Your task to perform on an android device: Open Yahoo.com Image 0: 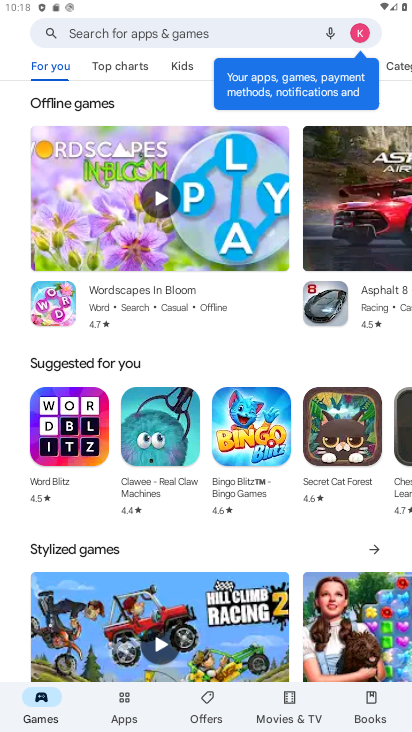
Step 0: press home button
Your task to perform on an android device: Open Yahoo.com Image 1: 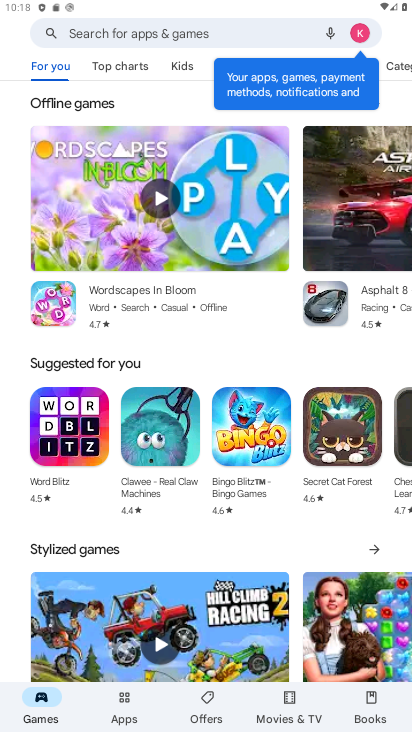
Step 1: press home button
Your task to perform on an android device: Open Yahoo.com Image 2: 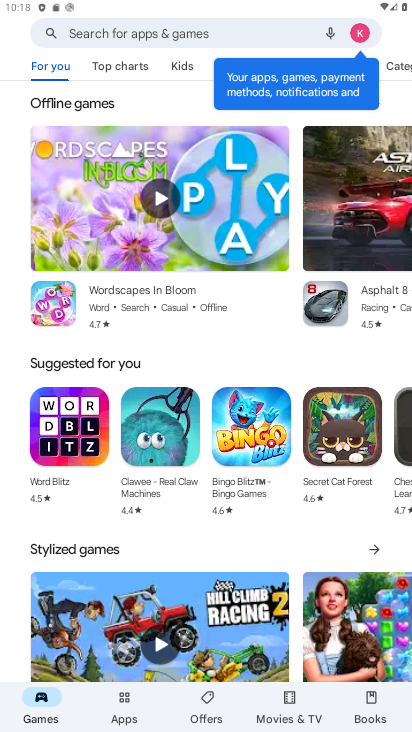
Step 2: click (233, 125)
Your task to perform on an android device: Open Yahoo.com Image 3: 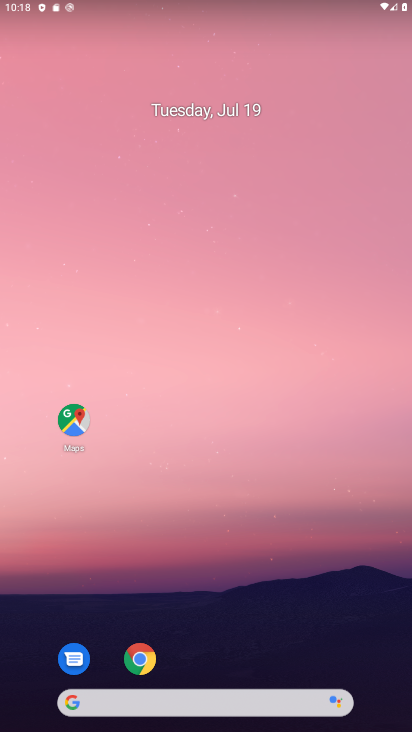
Step 3: press home button
Your task to perform on an android device: Open Yahoo.com Image 4: 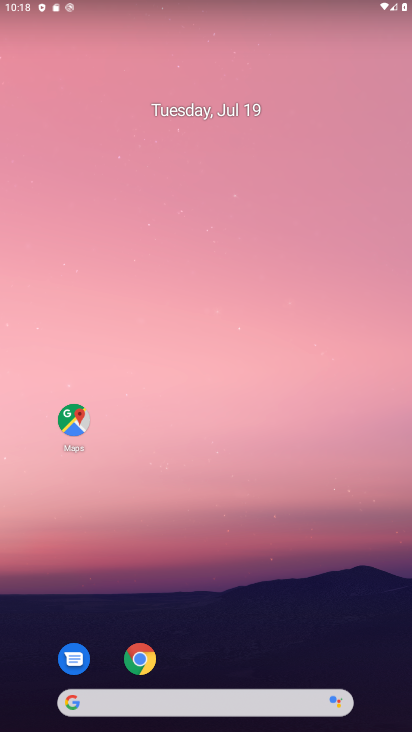
Step 4: click (265, 147)
Your task to perform on an android device: Open Yahoo.com Image 5: 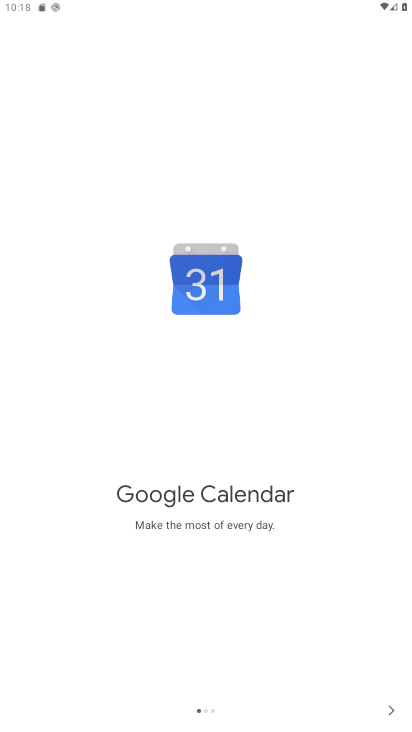
Step 5: click (381, 705)
Your task to perform on an android device: Open Yahoo.com Image 6: 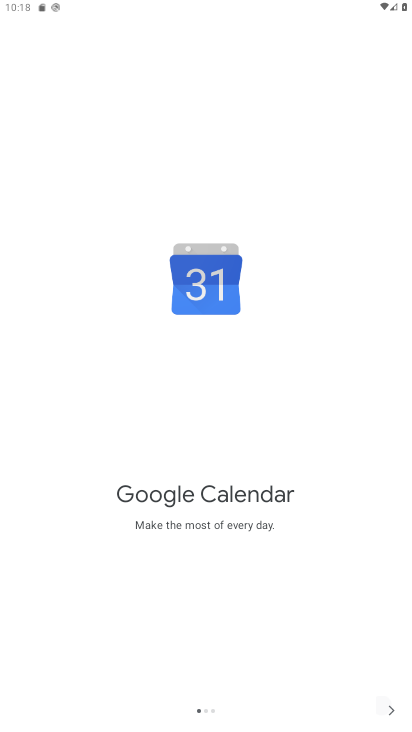
Step 6: click (381, 705)
Your task to perform on an android device: Open Yahoo.com Image 7: 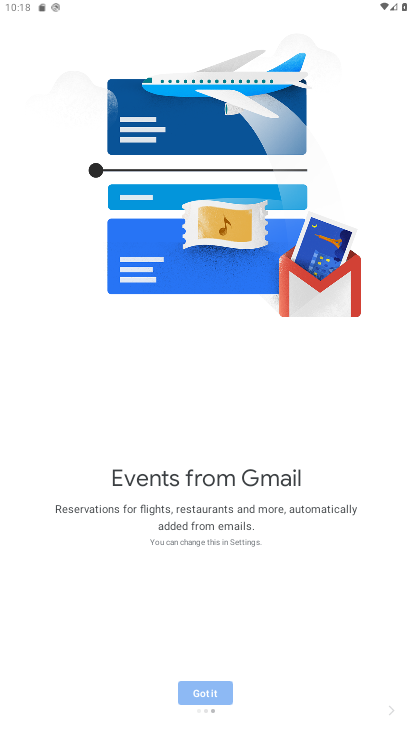
Step 7: click (390, 699)
Your task to perform on an android device: Open Yahoo.com Image 8: 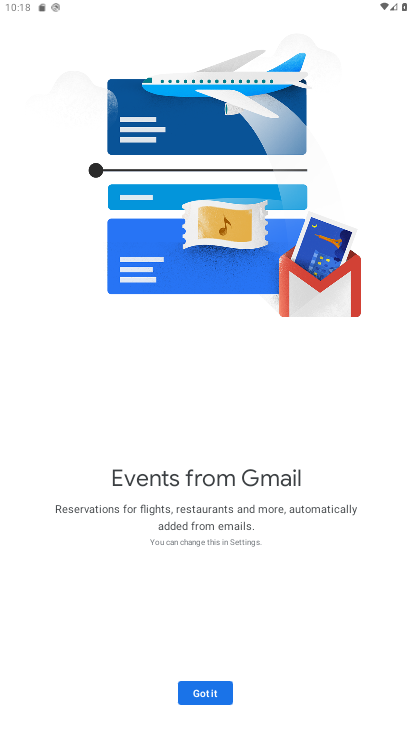
Step 8: click (390, 699)
Your task to perform on an android device: Open Yahoo.com Image 9: 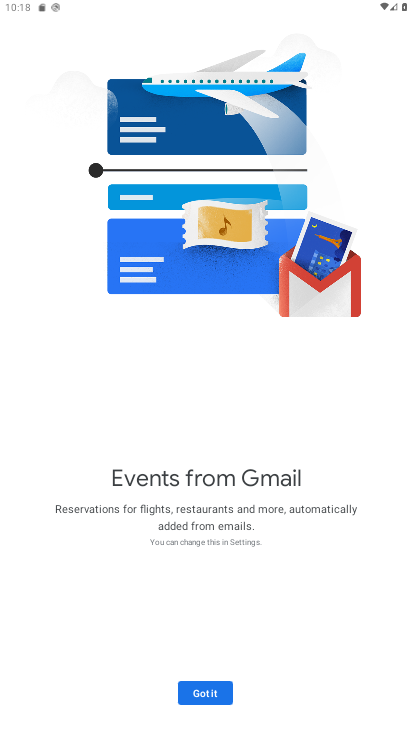
Step 9: click (199, 691)
Your task to perform on an android device: Open Yahoo.com Image 10: 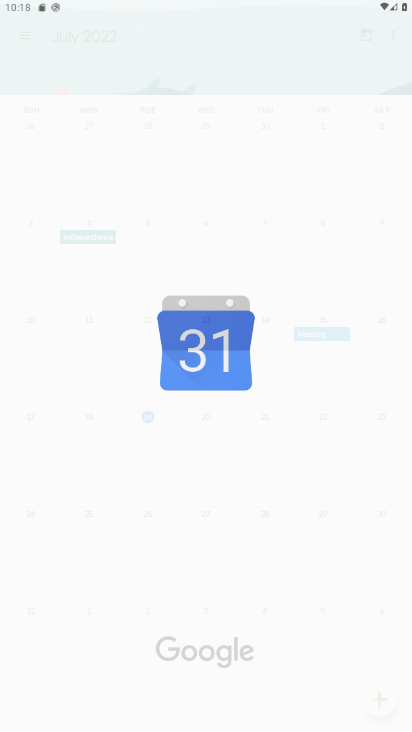
Step 10: drag from (248, 610) to (251, 408)
Your task to perform on an android device: Open Yahoo.com Image 11: 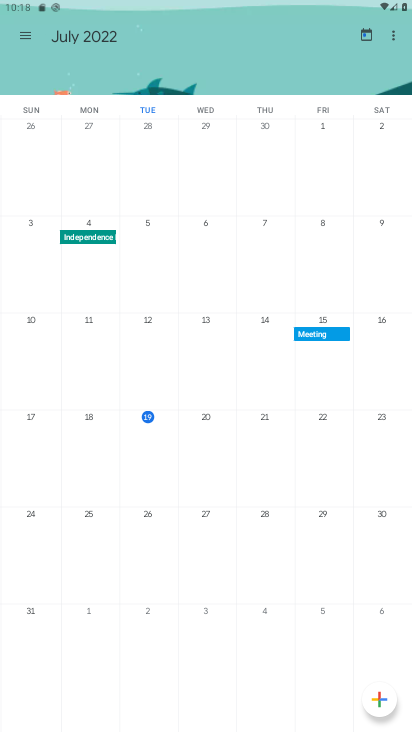
Step 11: press home button
Your task to perform on an android device: Open Yahoo.com Image 12: 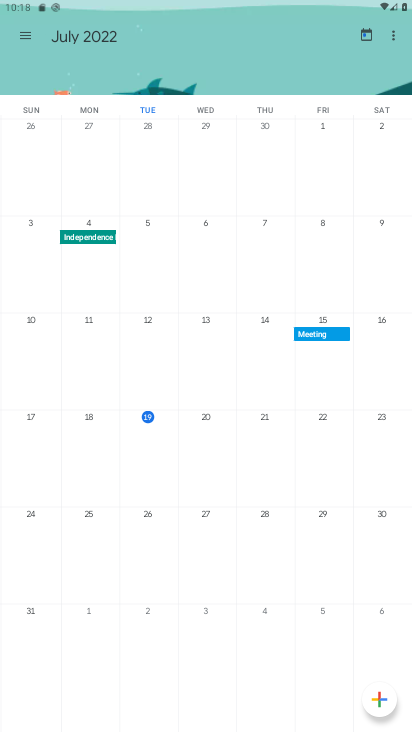
Step 12: drag from (260, 635) to (285, 181)
Your task to perform on an android device: Open Yahoo.com Image 13: 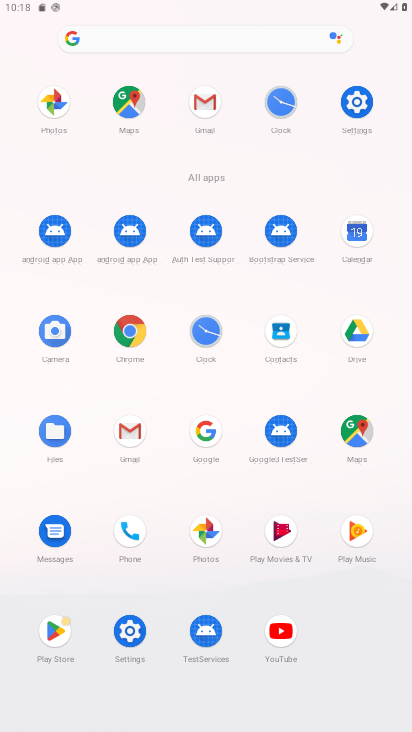
Step 13: drag from (197, 693) to (250, 132)
Your task to perform on an android device: Open Yahoo.com Image 14: 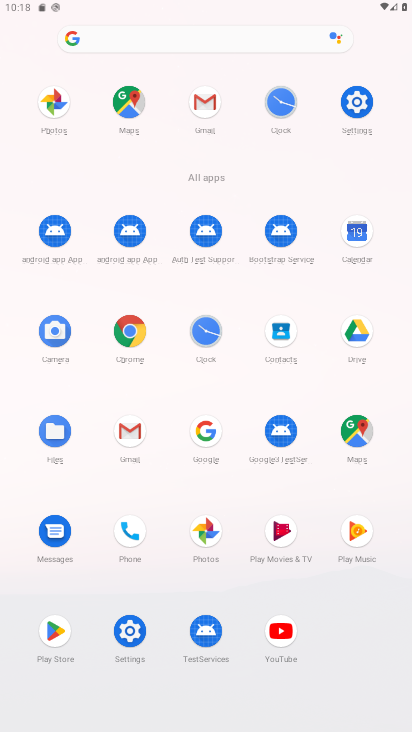
Step 14: click (154, 31)
Your task to perform on an android device: Open Yahoo.com Image 15: 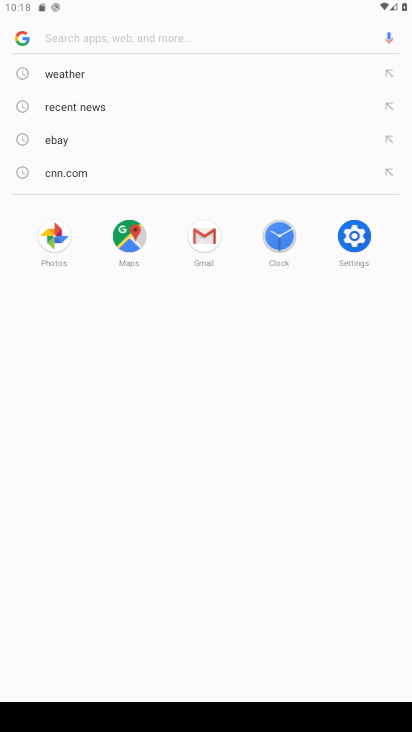
Step 15: type "Yahoo.com"
Your task to perform on an android device: Open Yahoo.com Image 16: 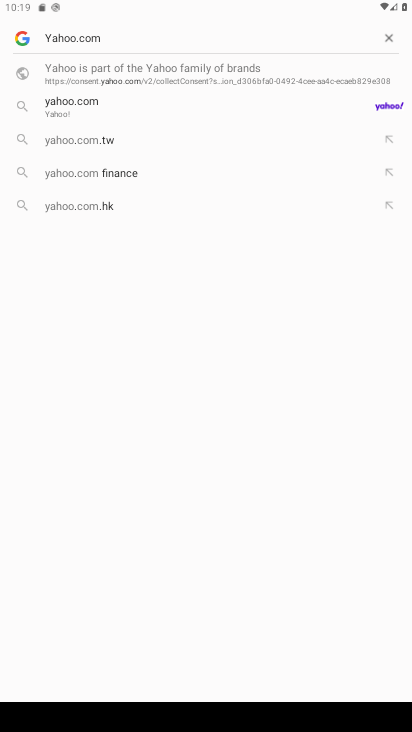
Step 16: click (115, 98)
Your task to perform on an android device: Open Yahoo.com Image 17: 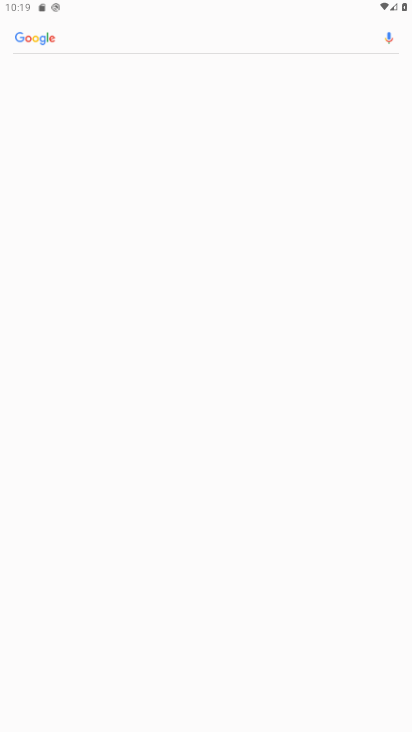
Step 17: drag from (257, 415) to (318, 192)
Your task to perform on an android device: Open Yahoo.com Image 18: 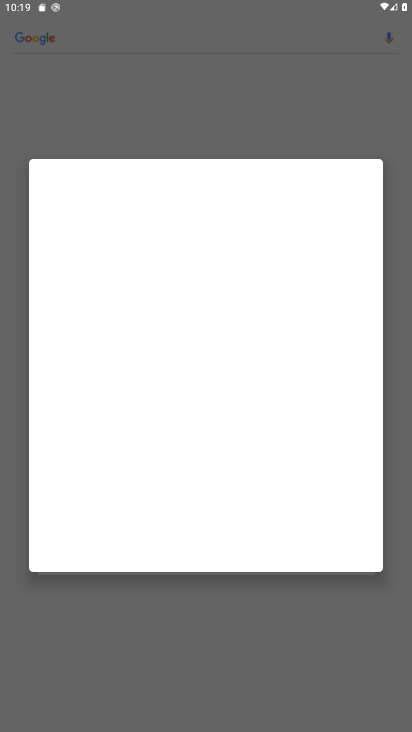
Step 18: drag from (168, 215) to (229, 592)
Your task to perform on an android device: Open Yahoo.com Image 19: 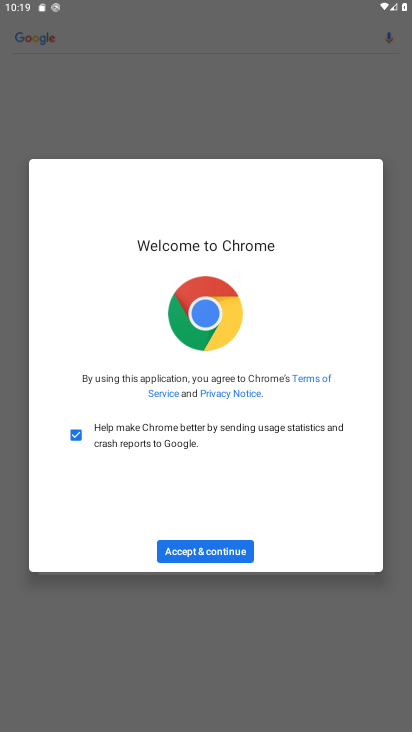
Step 19: click (222, 547)
Your task to perform on an android device: Open Yahoo.com Image 20: 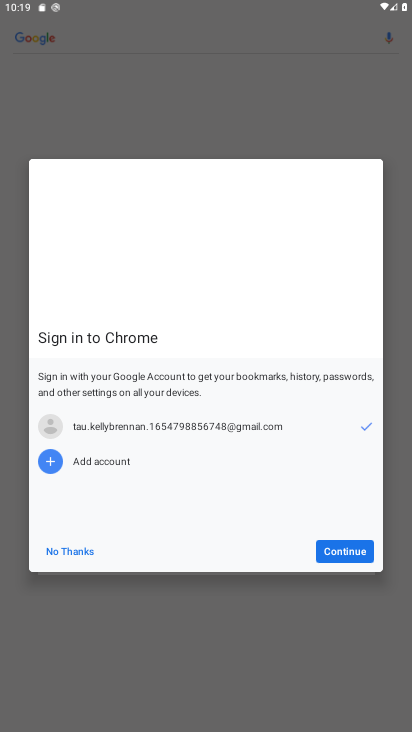
Step 20: click (342, 545)
Your task to perform on an android device: Open Yahoo.com Image 21: 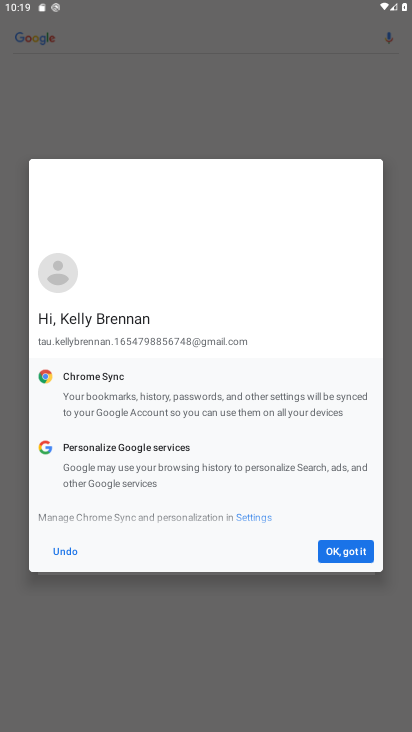
Step 21: click (345, 547)
Your task to perform on an android device: Open Yahoo.com Image 22: 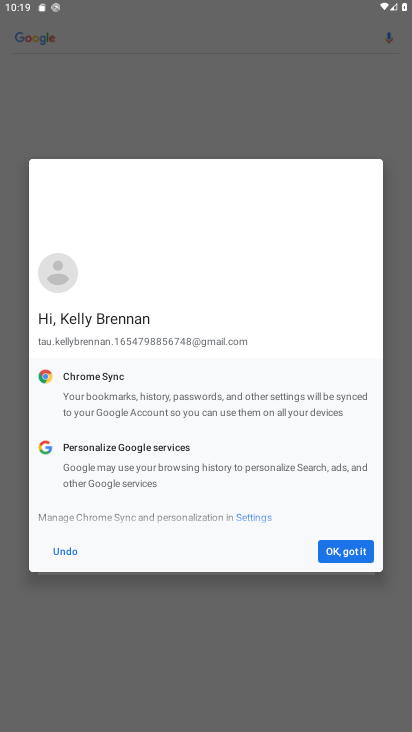
Step 22: click (346, 546)
Your task to perform on an android device: Open Yahoo.com Image 23: 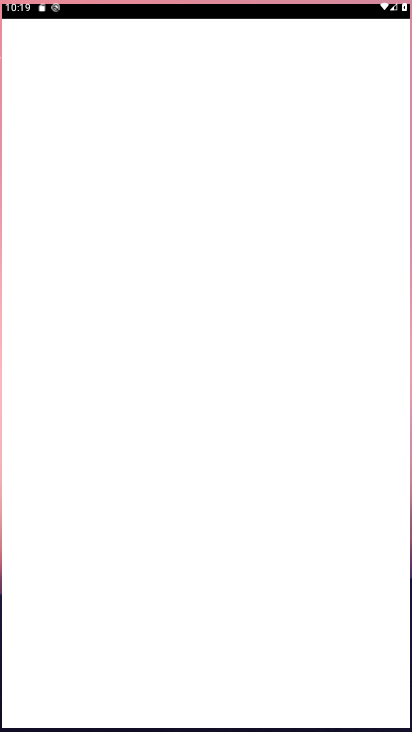
Step 23: click (331, 548)
Your task to perform on an android device: Open Yahoo.com Image 24: 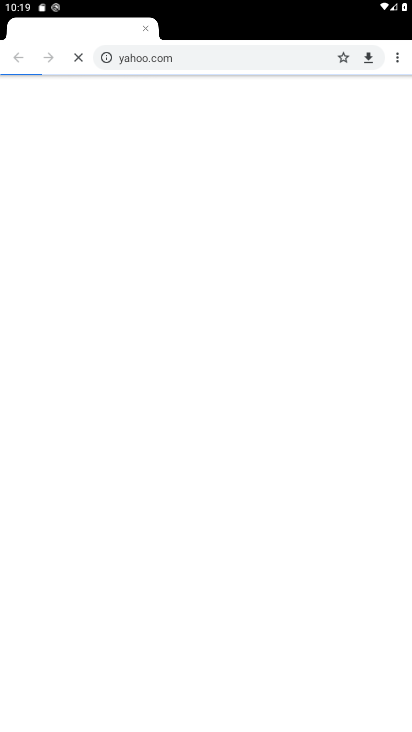
Step 24: task complete